Your task to perform on an android device: turn on sleep mode Image 0: 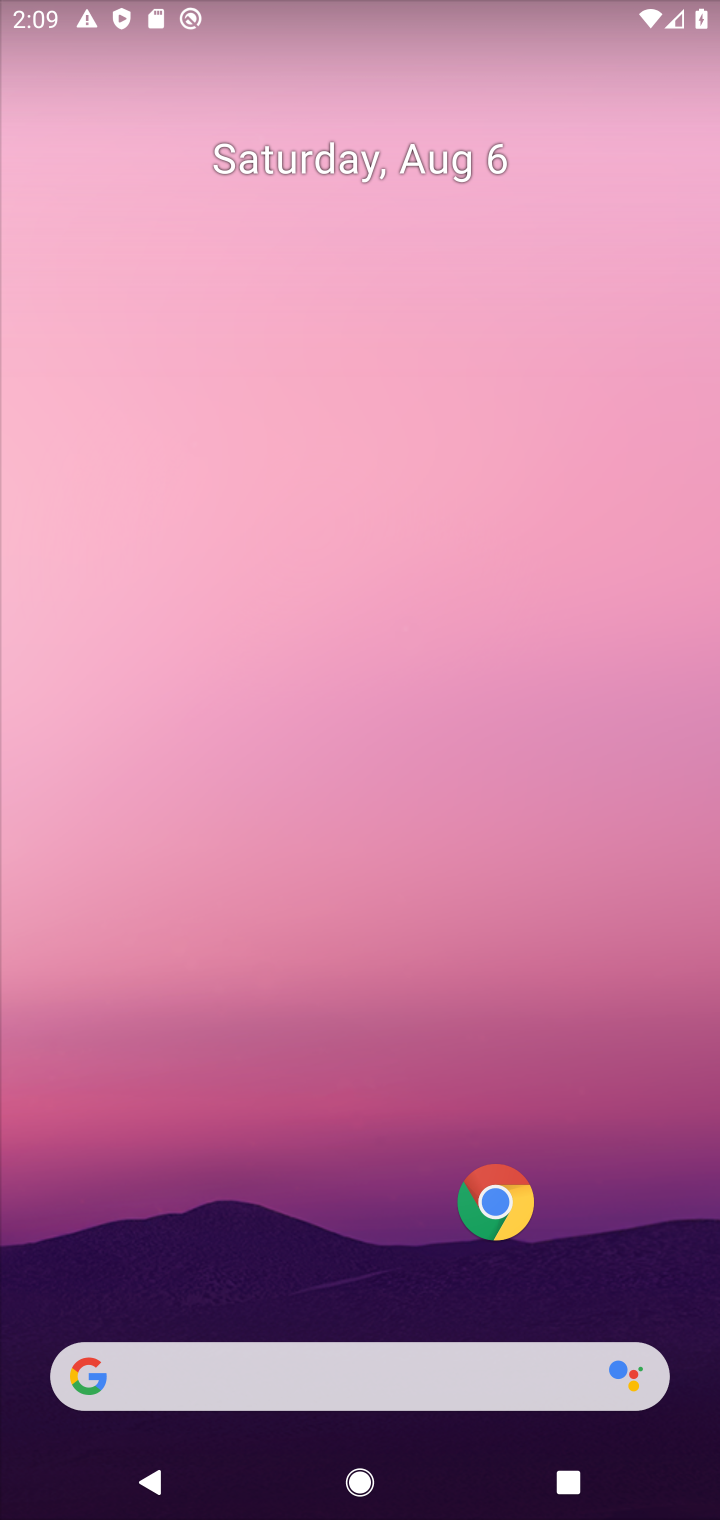
Step 0: click (437, 17)
Your task to perform on an android device: turn on sleep mode Image 1: 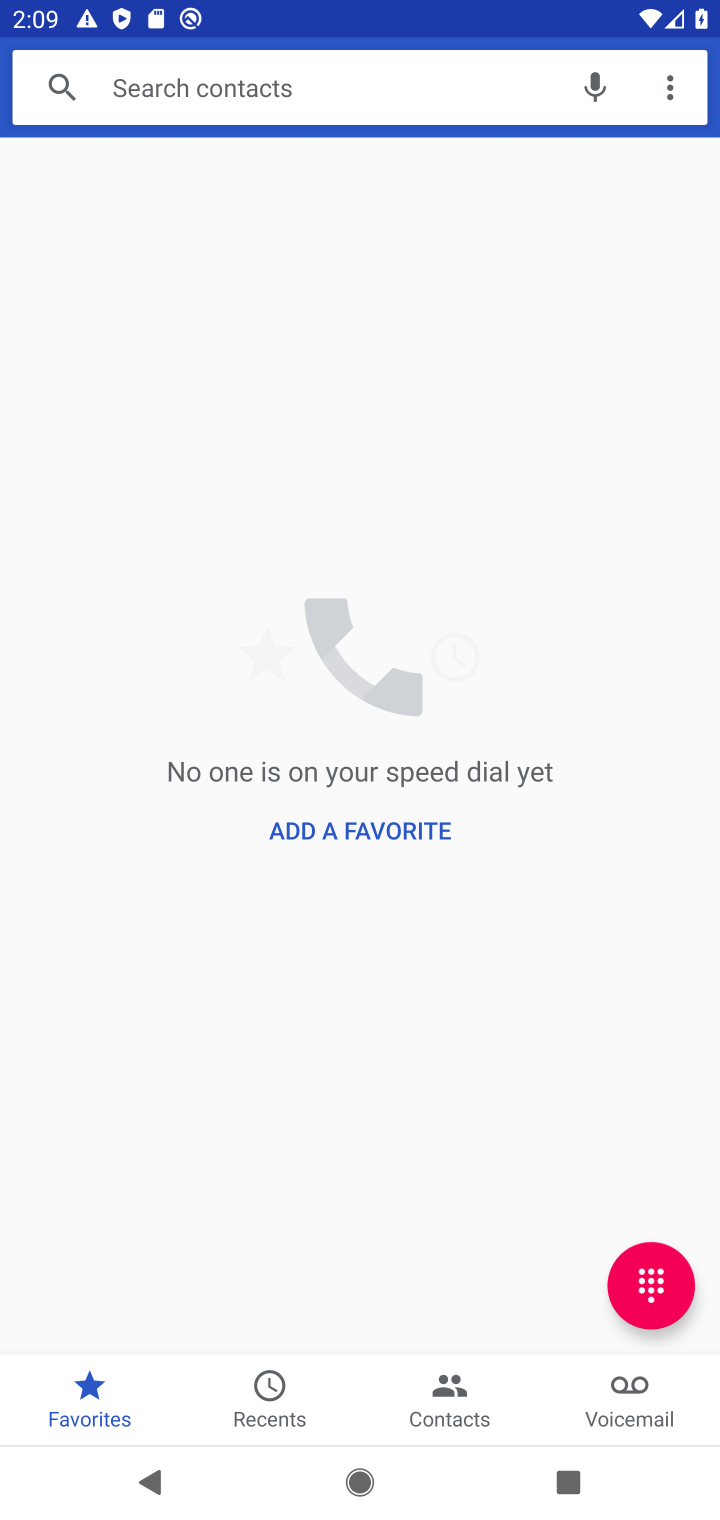
Step 1: task complete